Your task to perform on an android device: Go to settings Image 0: 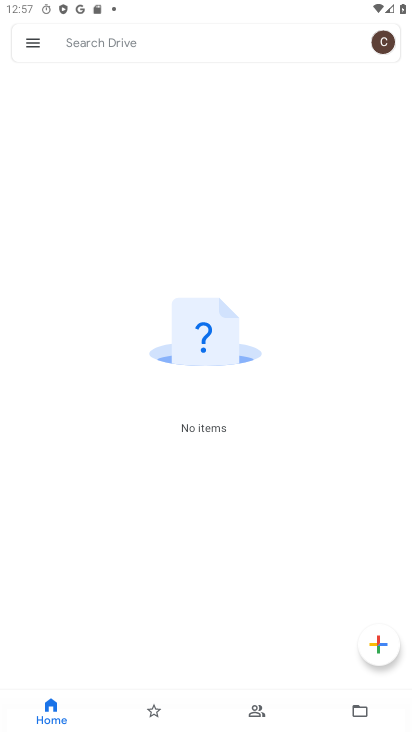
Step 0: press home button
Your task to perform on an android device: Go to settings Image 1: 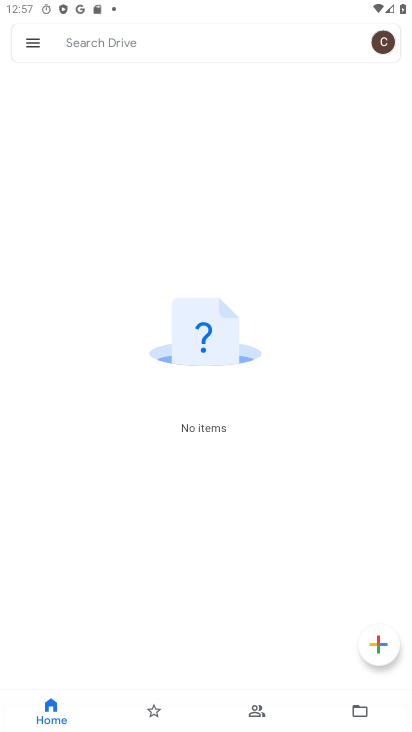
Step 1: press home button
Your task to perform on an android device: Go to settings Image 2: 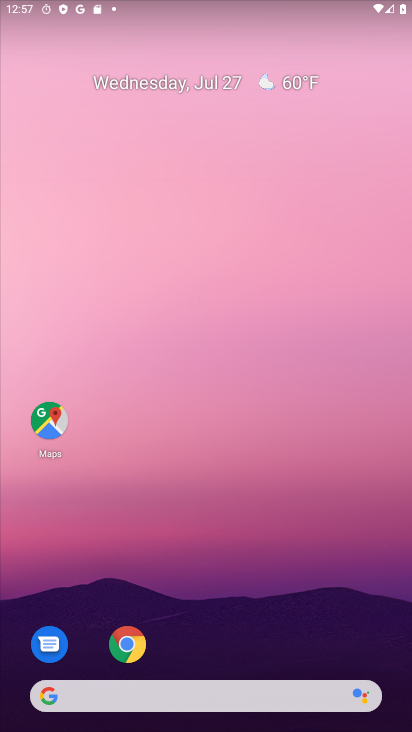
Step 2: drag from (187, 525) to (187, 164)
Your task to perform on an android device: Go to settings Image 3: 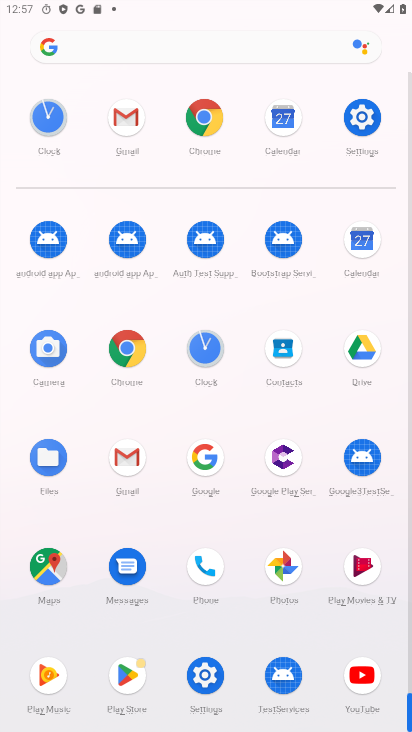
Step 3: click (350, 112)
Your task to perform on an android device: Go to settings Image 4: 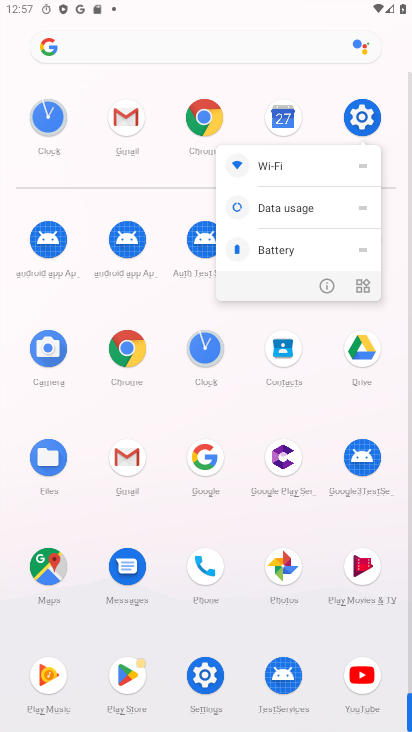
Step 4: click (322, 285)
Your task to perform on an android device: Go to settings Image 5: 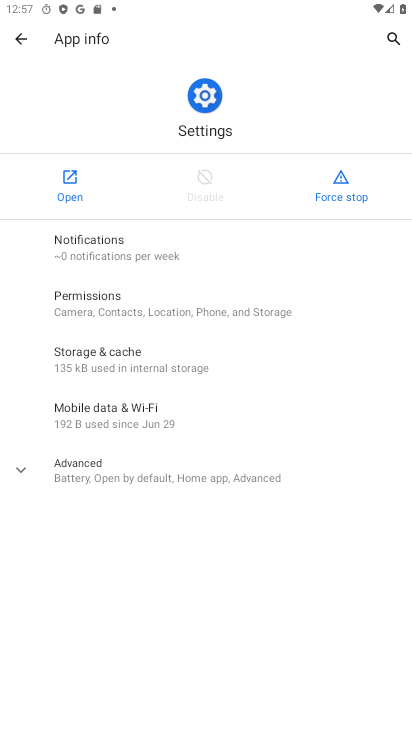
Step 5: click (58, 183)
Your task to perform on an android device: Go to settings Image 6: 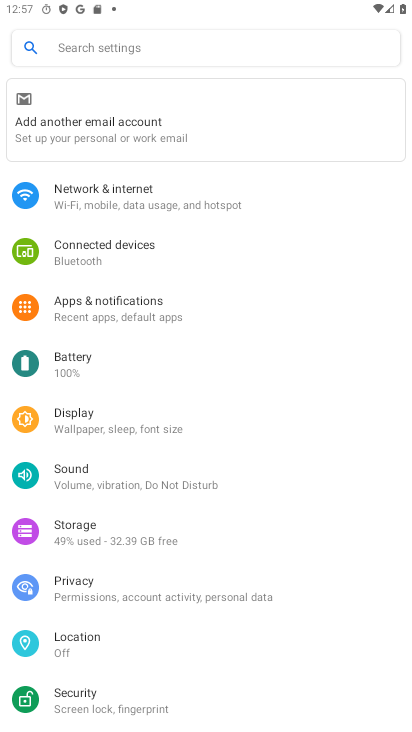
Step 6: task complete